Your task to perform on an android device: Play the last video I watched on Youtube Image 0: 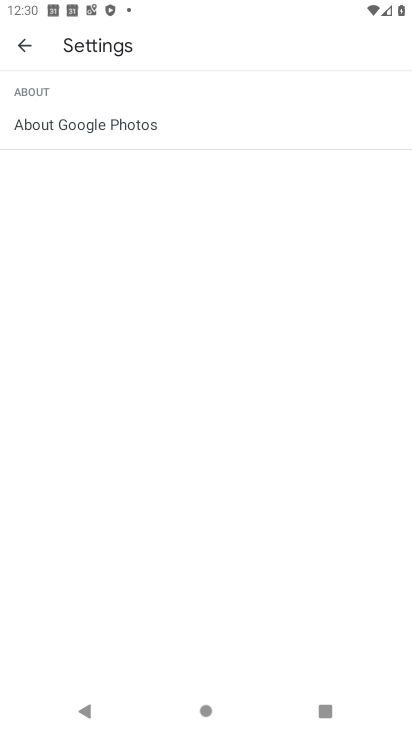
Step 0: press home button
Your task to perform on an android device: Play the last video I watched on Youtube Image 1: 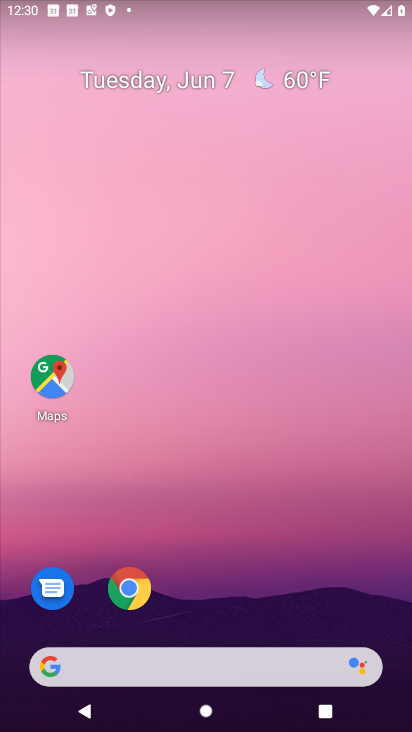
Step 1: drag from (151, 688) to (234, 58)
Your task to perform on an android device: Play the last video I watched on Youtube Image 2: 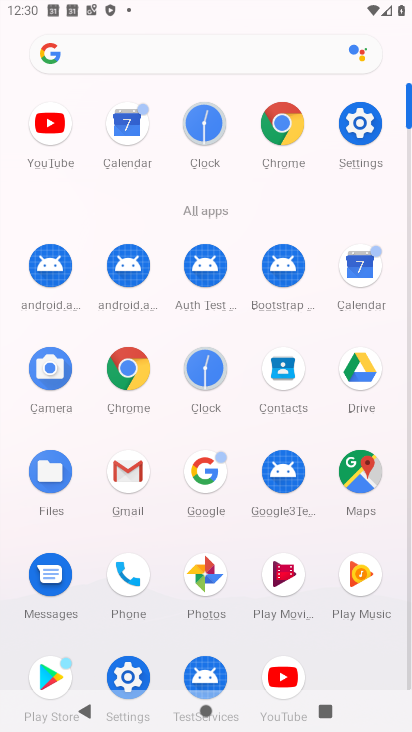
Step 2: click (274, 663)
Your task to perform on an android device: Play the last video I watched on Youtube Image 3: 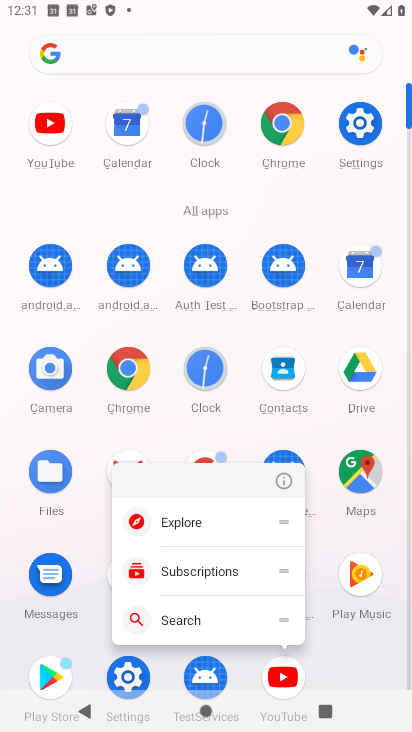
Step 3: click (281, 677)
Your task to perform on an android device: Play the last video I watched on Youtube Image 4: 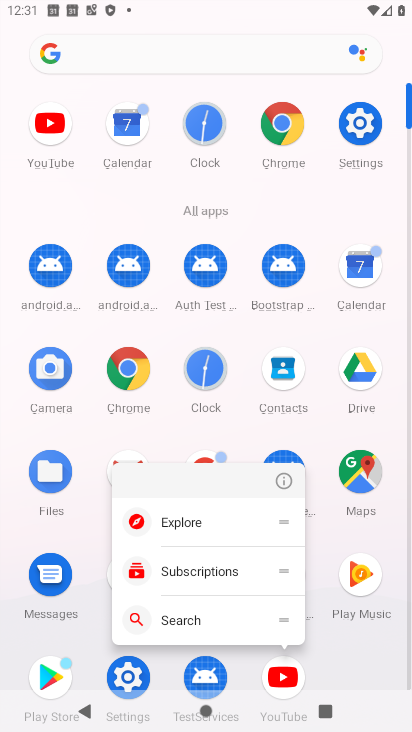
Step 4: click (281, 677)
Your task to perform on an android device: Play the last video I watched on Youtube Image 5: 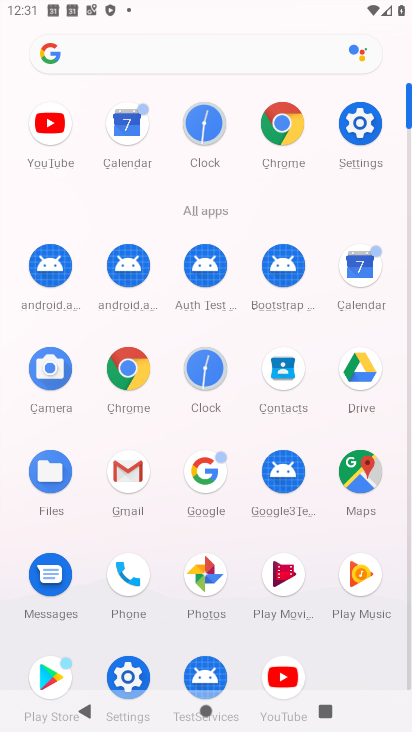
Step 5: click (281, 677)
Your task to perform on an android device: Play the last video I watched on Youtube Image 6: 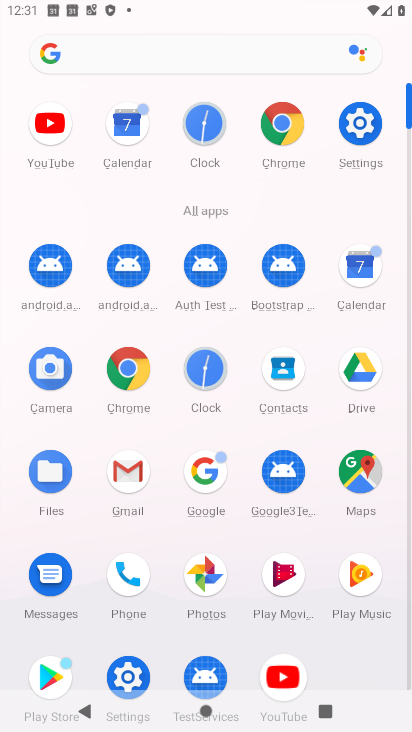
Step 6: click (281, 677)
Your task to perform on an android device: Play the last video I watched on Youtube Image 7: 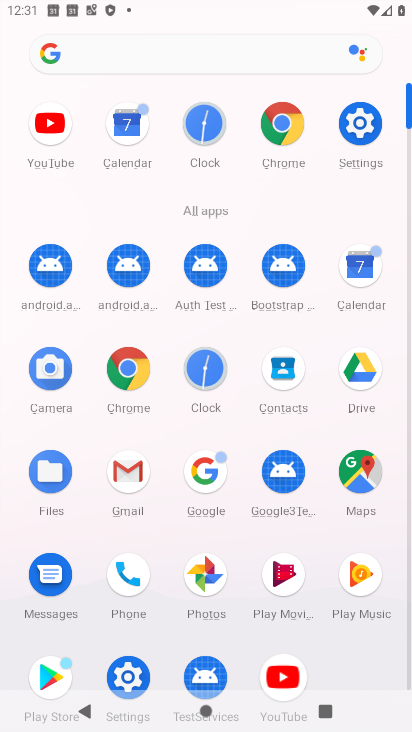
Step 7: click (281, 677)
Your task to perform on an android device: Play the last video I watched on Youtube Image 8: 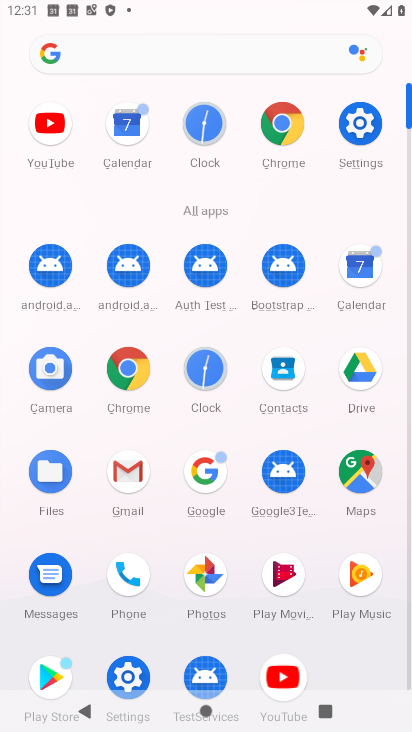
Step 8: click (281, 677)
Your task to perform on an android device: Play the last video I watched on Youtube Image 9: 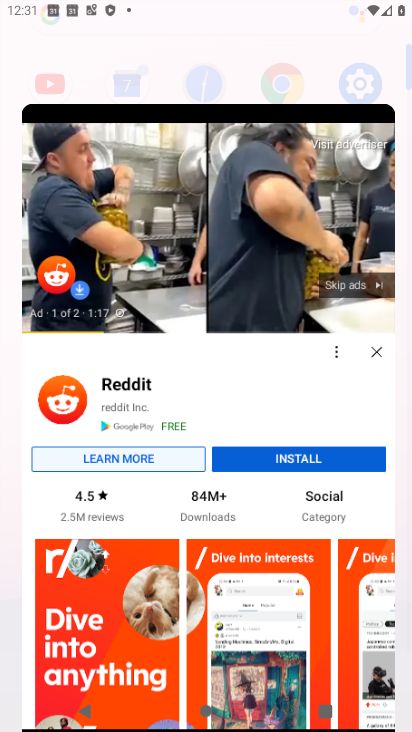
Step 9: click (281, 677)
Your task to perform on an android device: Play the last video I watched on Youtube Image 10: 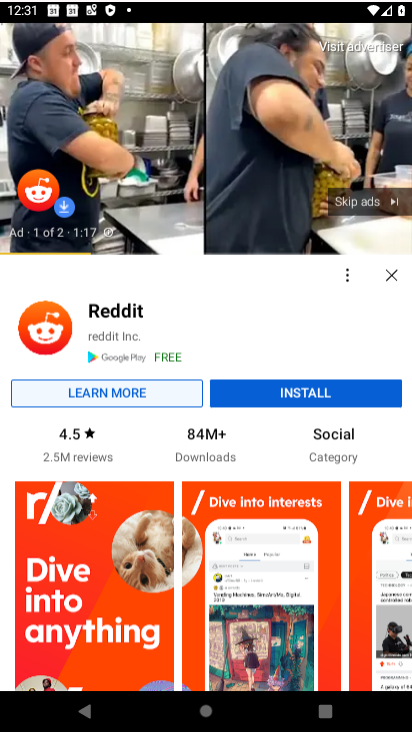
Step 10: click (281, 677)
Your task to perform on an android device: Play the last video I watched on Youtube Image 11: 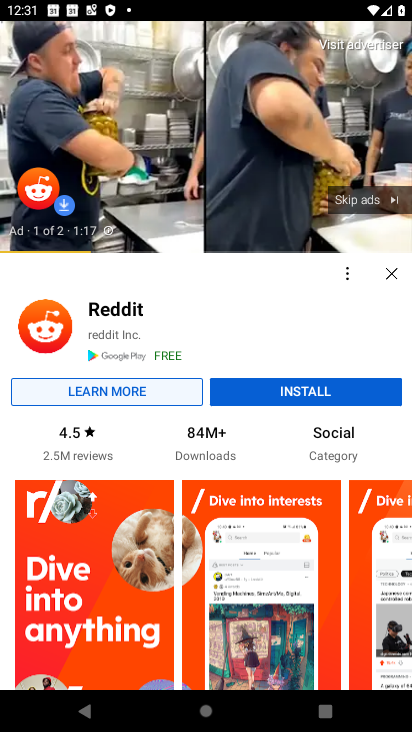
Step 11: click (281, 677)
Your task to perform on an android device: Play the last video I watched on Youtube Image 12: 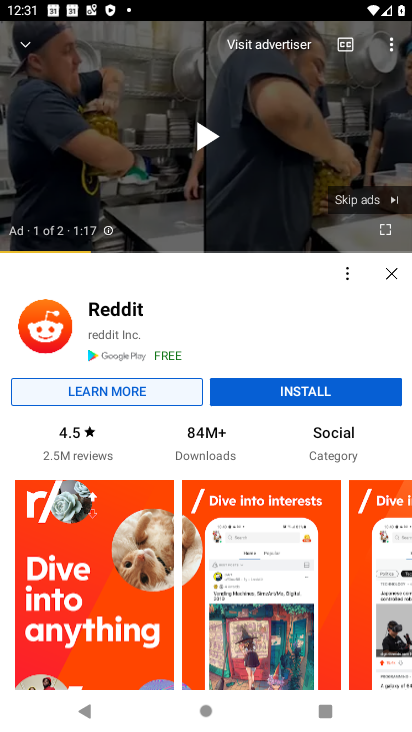
Step 12: click (187, 149)
Your task to perform on an android device: Play the last video I watched on Youtube Image 13: 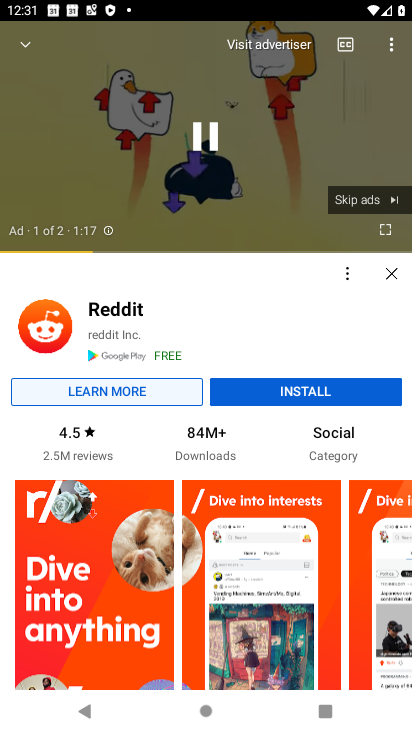
Step 13: task complete